Your task to perform on an android device: Go to settings Image 0: 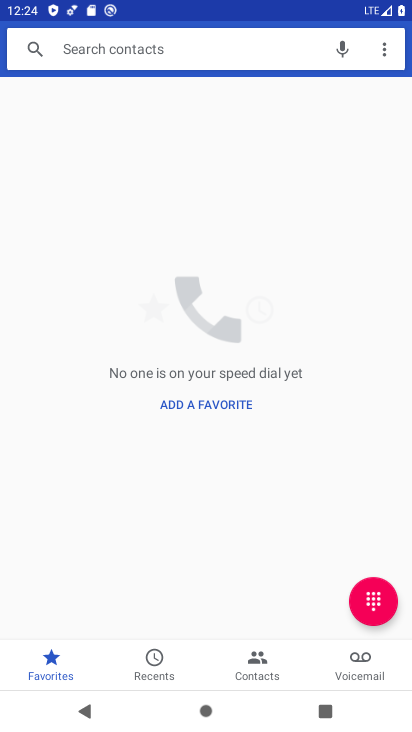
Step 0: press back button
Your task to perform on an android device: Go to settings Image 1: 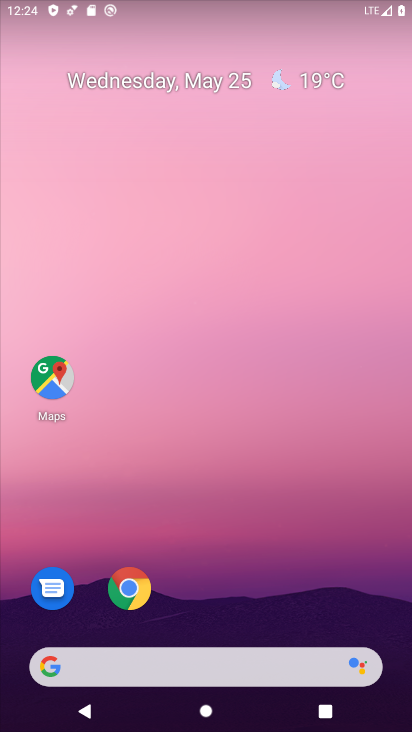
Step 1: drag from (216, 632) to (280, 185)
Your task to perform on an android device: Go to settings Image 2: 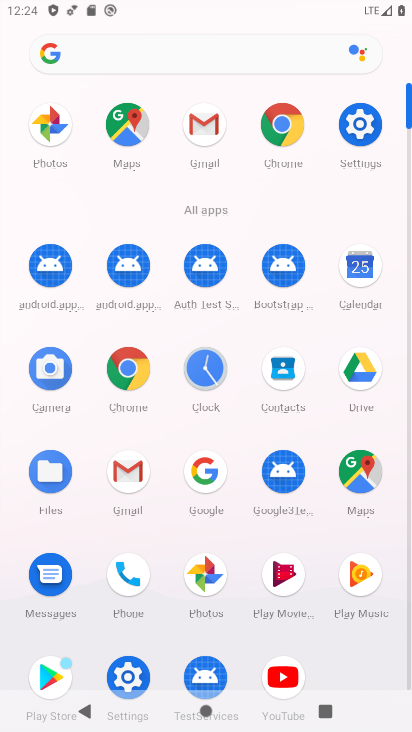
Step 2: click (117, 669)
Your task to perform on an android device: Go to settings Image 3: 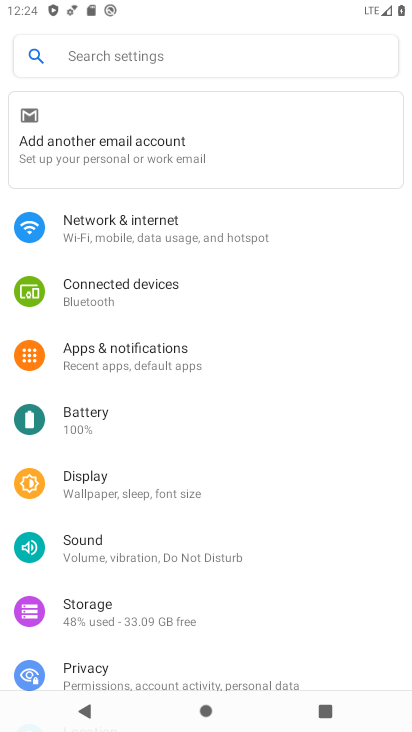
Step 3: task complete